Your task to perform on an android device: Open calendar and show me the fourth week of next month Image 0: 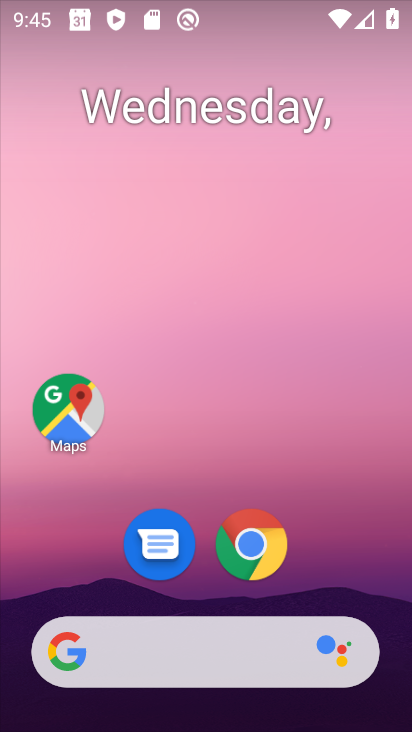
Step 0: drag from (308, 587) to (306, 0)
Your task to perform on an android device: Open calendar and show me the fourth week of next month Image 1: 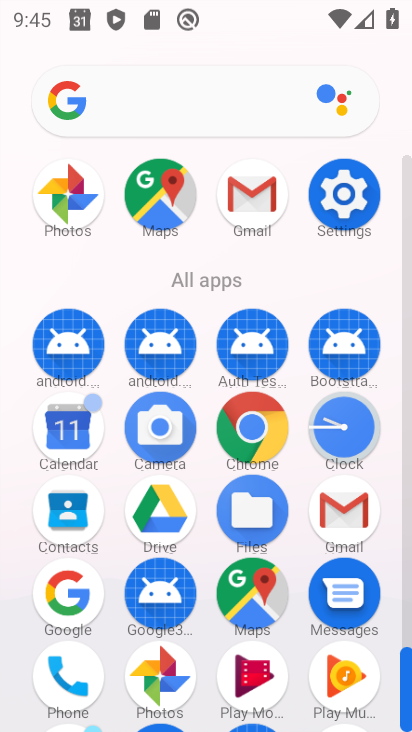
Step 1: click (77, 417)
Your task to perform on an android device: Open calendar and show me the fourth week of next month Image 2: 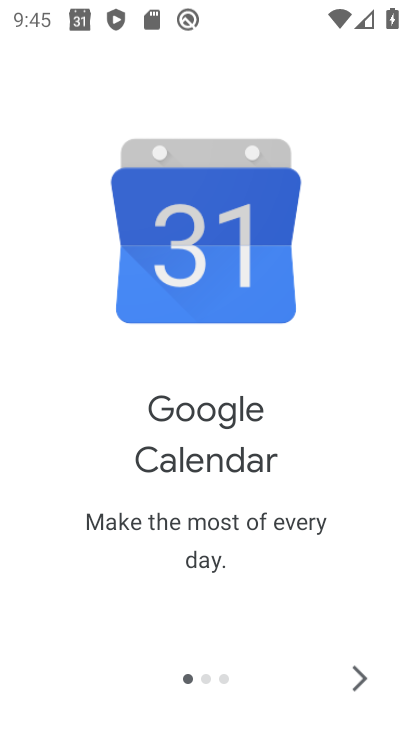
Step 2: click (357, 669)
Your task to perform on an android device: Open calendar and show me the fourth week of next month Image 3: 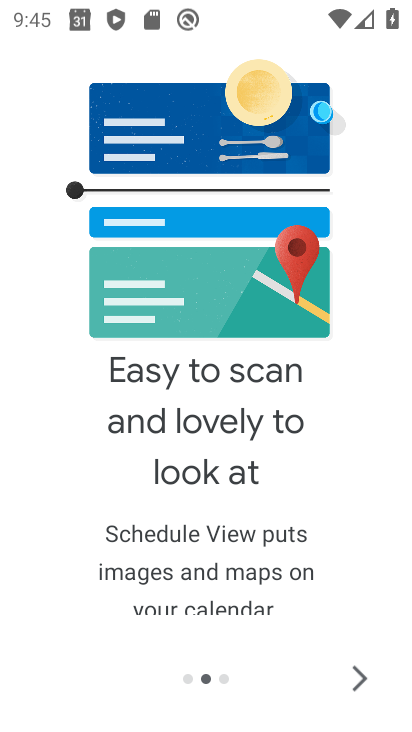
Step 3: click (357, 669)
Your task to perform on an android device: Open calendar and show me the fourth week of next month Image 4: 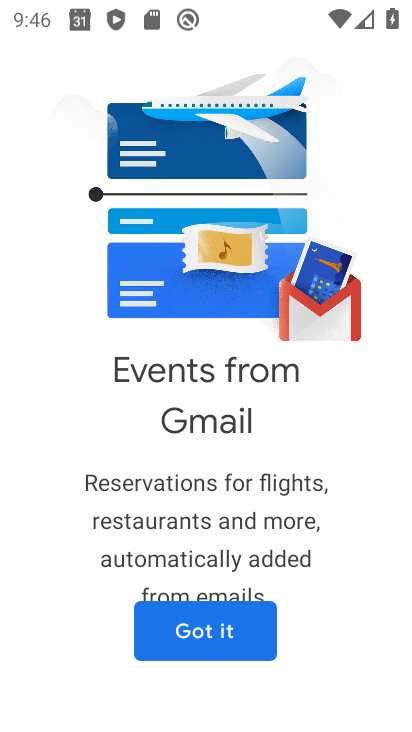
Step 4: click (190, 643)
Your task to perform on an android device: Open calendar and show me the fourth week of next month Image 5: 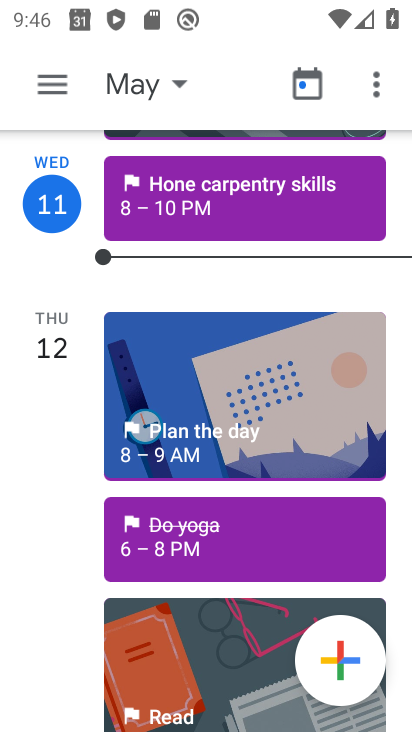
Step 5: click (123, 90)
Your task to perform on an android device: Open calendar and show me the fourth week of next month Image 6: 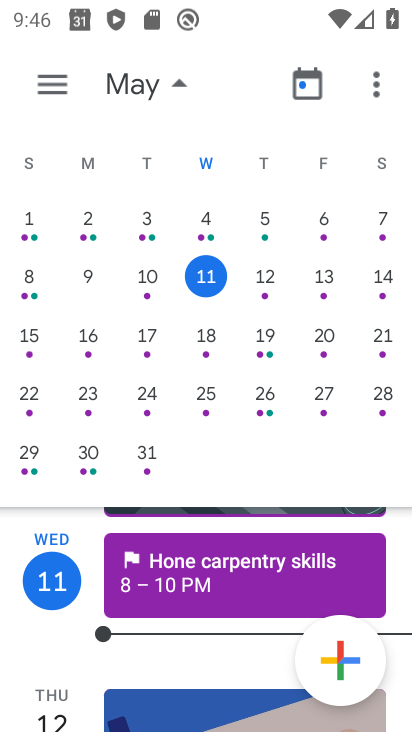
Step 6: drag from (340, 343) to (3, 267)
Your task to perform on an android device: Open calendar and show me the fourth week of next month Image 7: 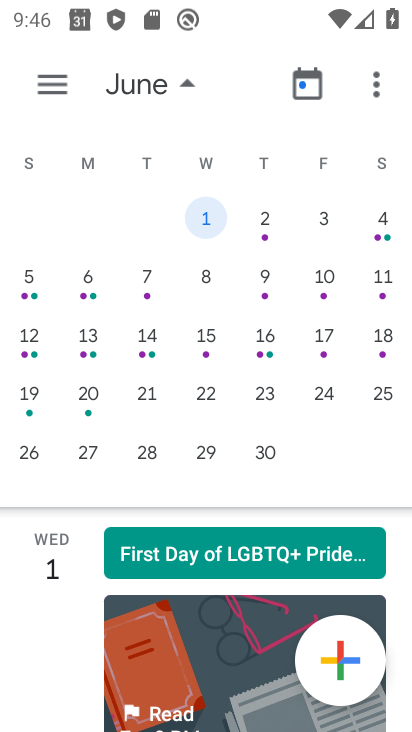
Step 7: click (26, 411)
Your task to perform on an android device: Open calendar and show me the fourth week of next month Image 8: 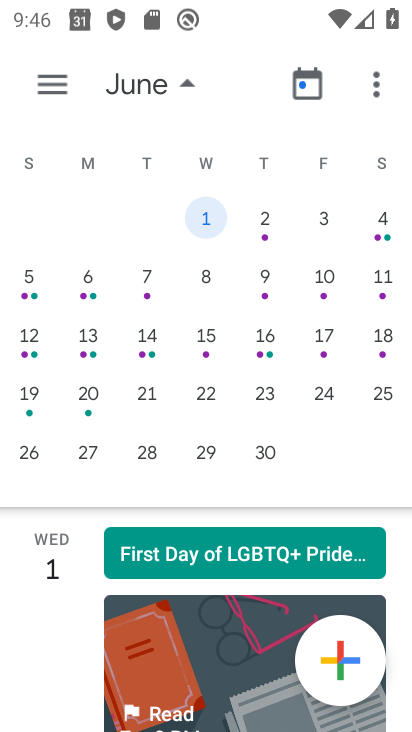
Step 8: click (36, 410)
Your task to perform on an android device: Open calendar and show me the fourth week of next month Image 9: 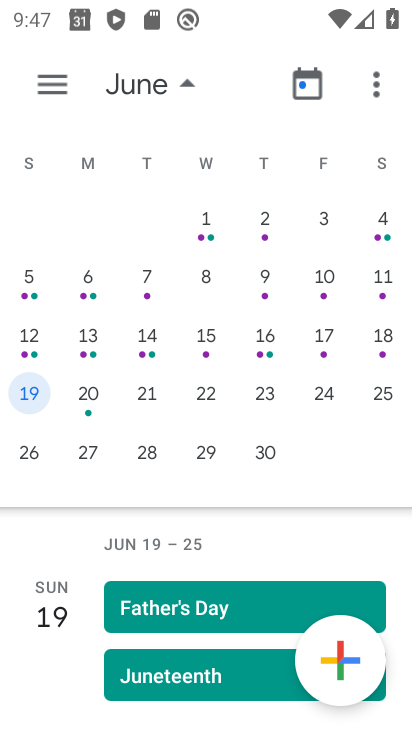
Step 9: task complete